Your task to perform on an android device: See recent photos Image 0: 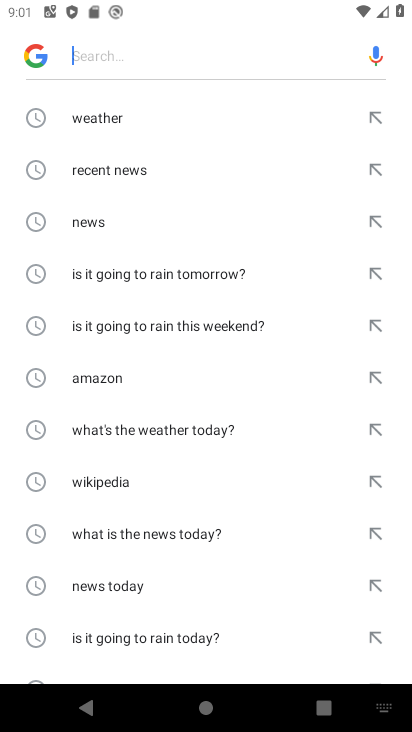
Step 0: press home button
Your task to perform on an android device: See recent photos Image 1: 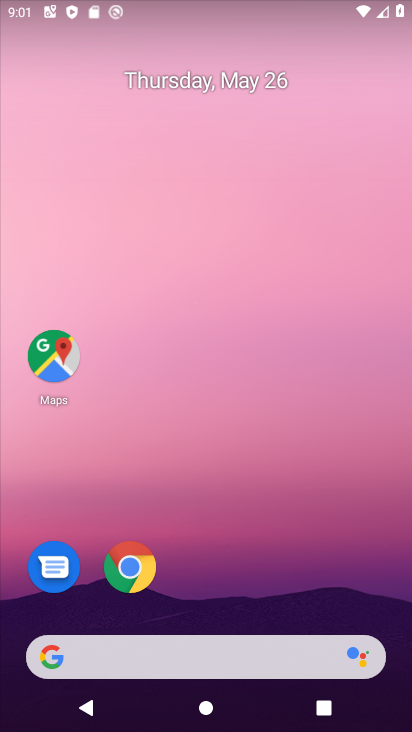
Step 1: drag from (118, 649) to (271, 139)
Your task to perform on an android device: See recent photos Image 2: 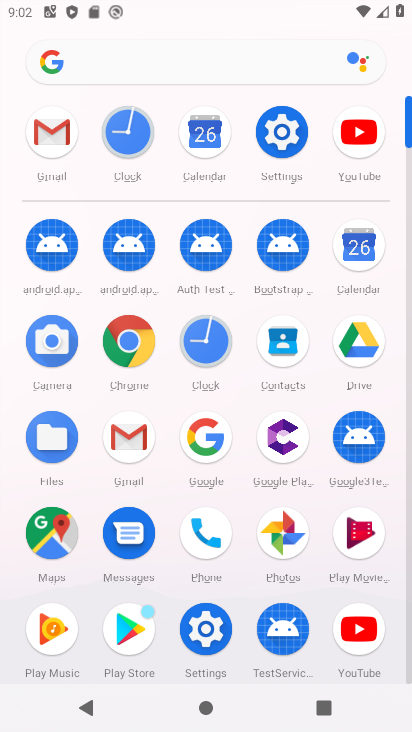
Step 2: click (282, 533)
Your task to perform on an android device: See recent photos Image 3: 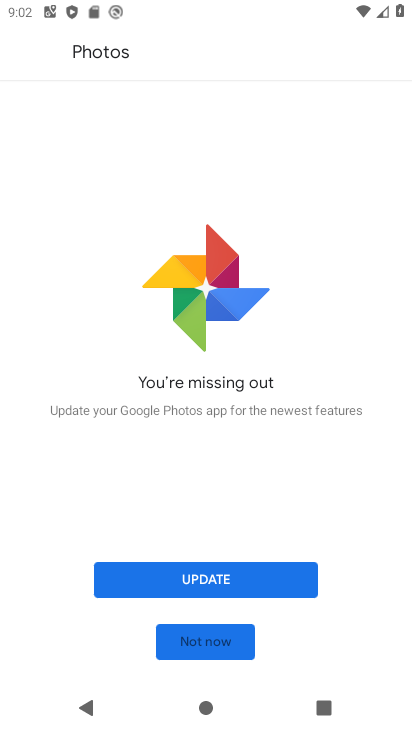
Step 3: click (208, 578)
Your task to perform on an android device: See recent photos Image 4: 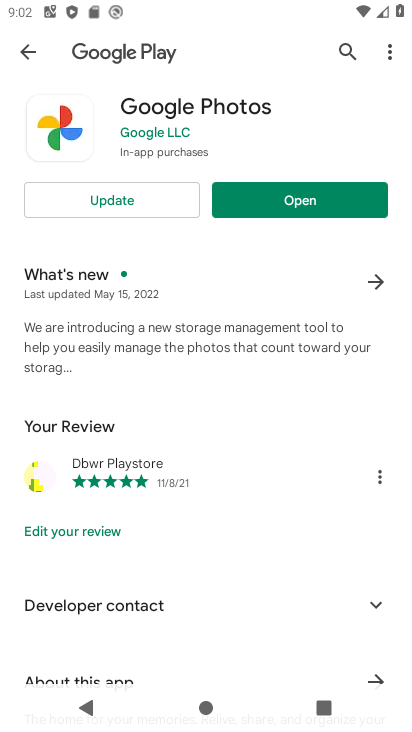
Step 4: click (126, 200)
Your task to perform on an android device: See recent photos Image 5: 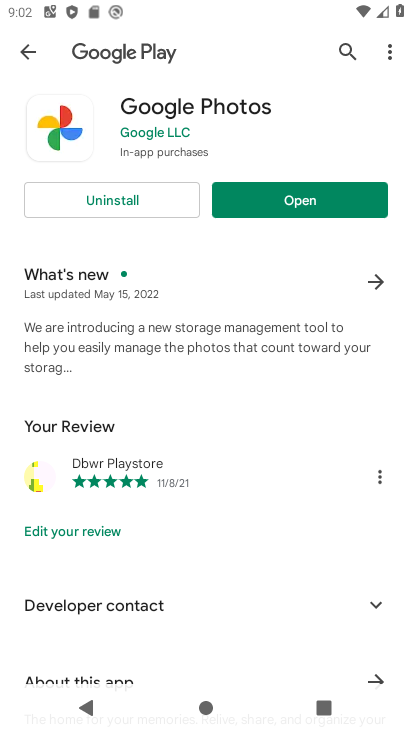
Step 5: click (298, 196)
Your task to perform on an android device: See recent photos Image 6: 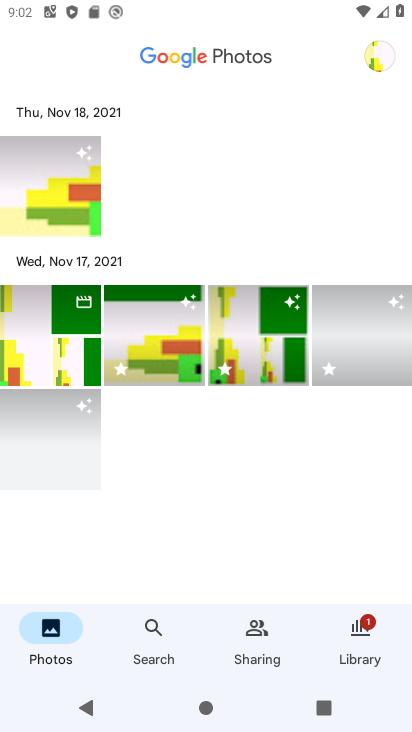
Step 6: click (161, 658)
Your task to perform on an android device: See recent photos Image 7: 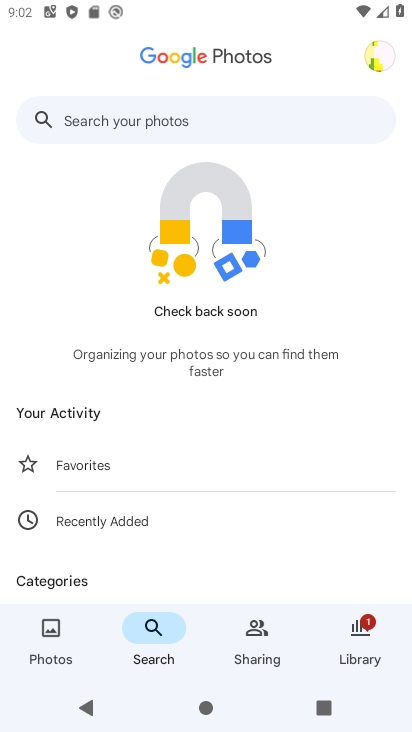
Step 7: click (129, 519)
Your task to perform on an android device: See recent photos Image 8: 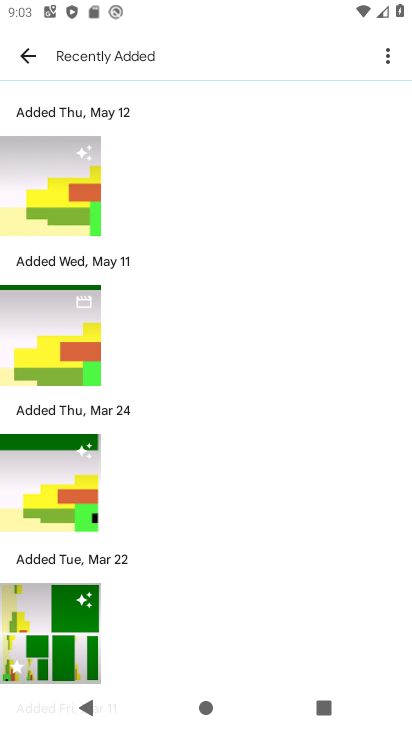
Step 8: task complete